Your task to perform on an android device: check storage Image 0: 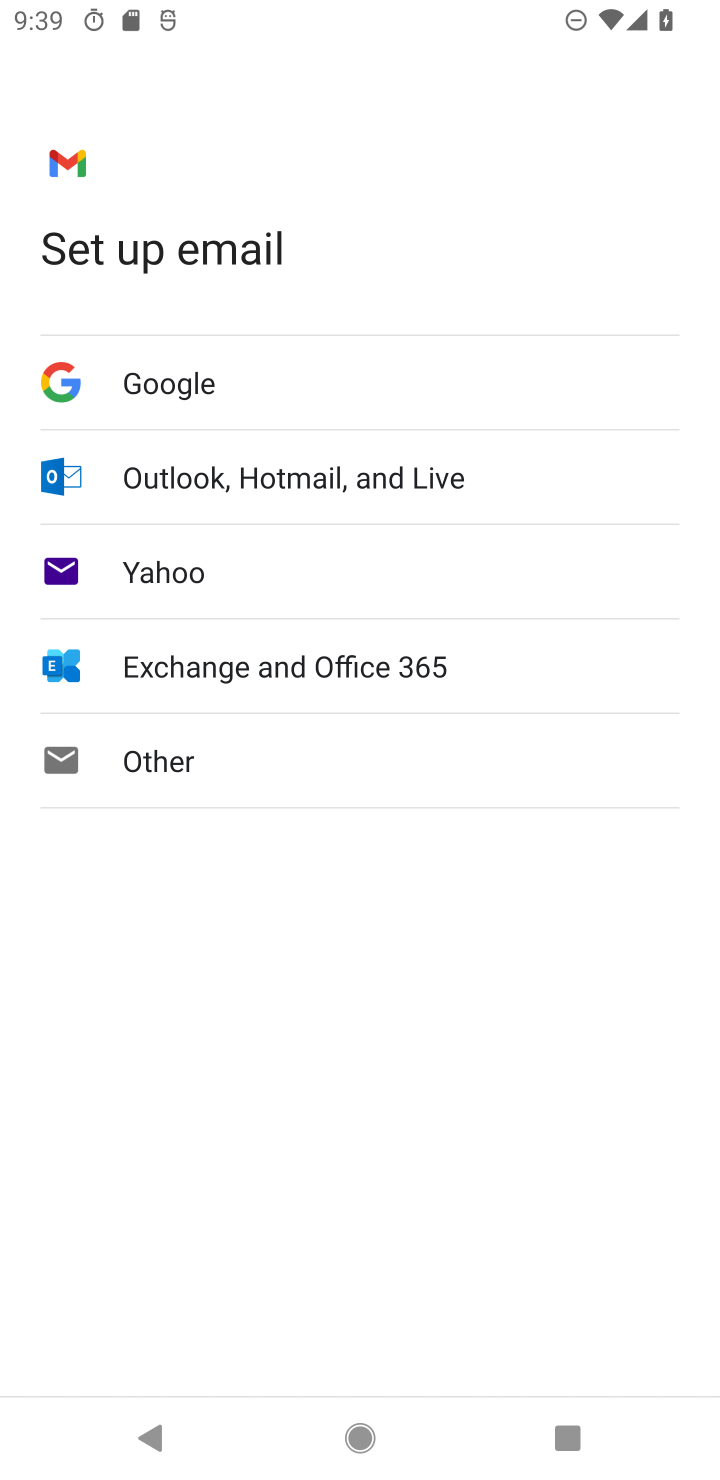
Step 0: press home button
Your task to perform on an android device: check storage Image 1: 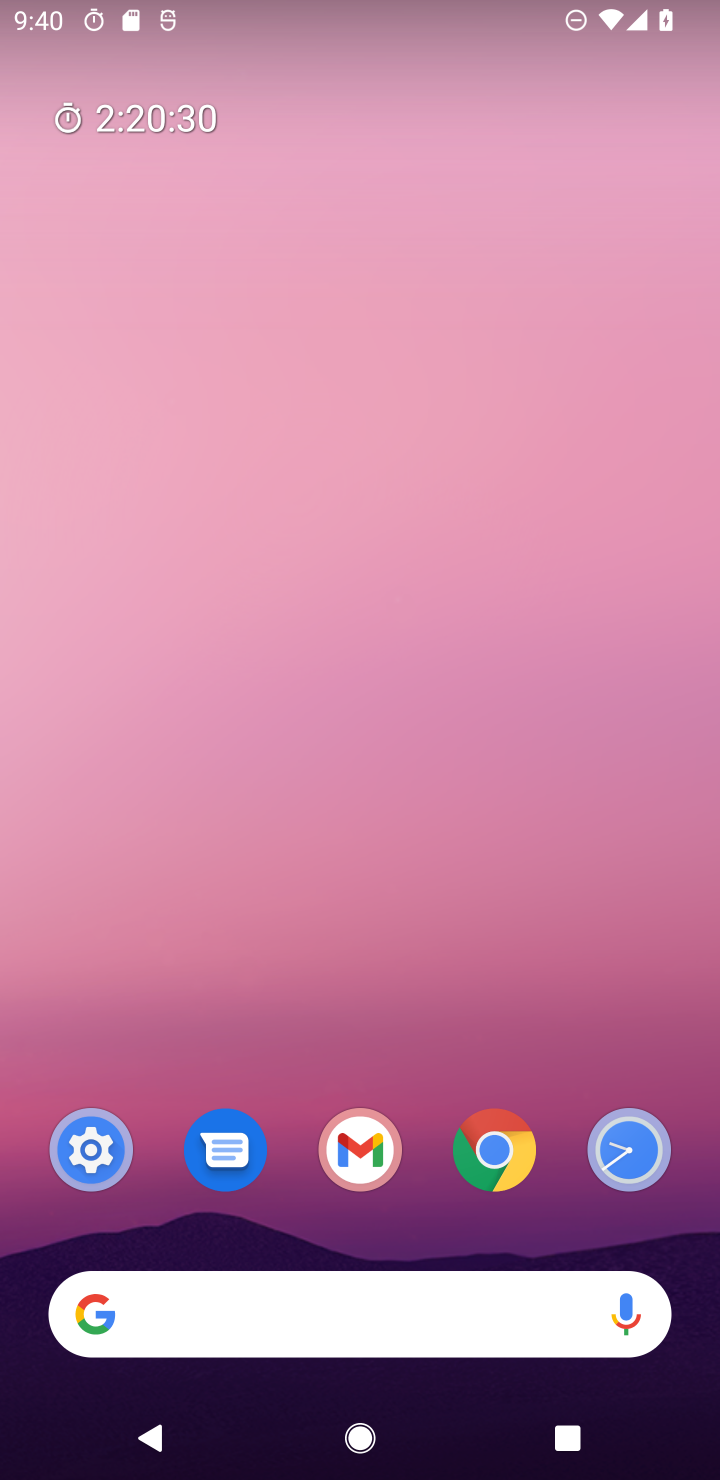
Step 1: drag from (230, 1300) to (132, 526)
Your task to perform on an android device: check storage Image 2: 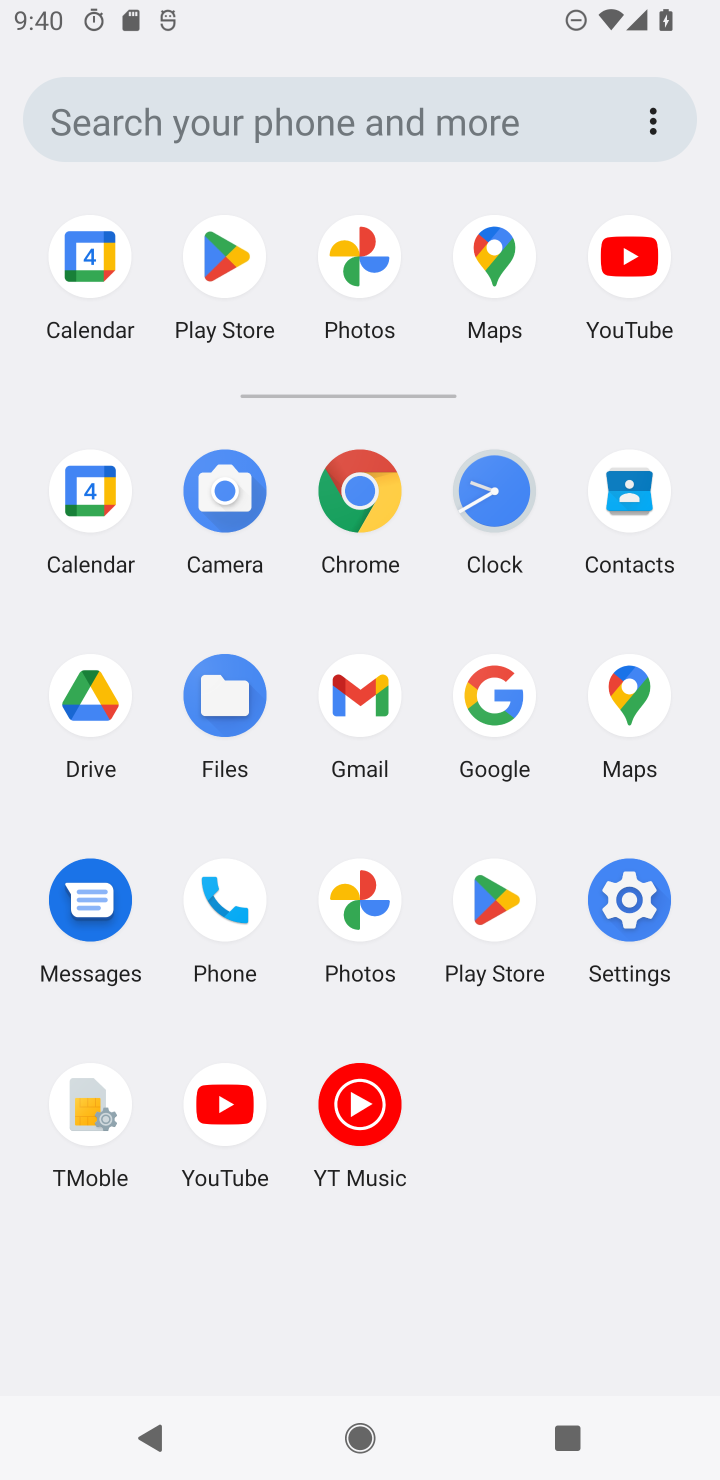
Step 2: click (647, 912)
Your task to perform on an android device: check storage Image 3: 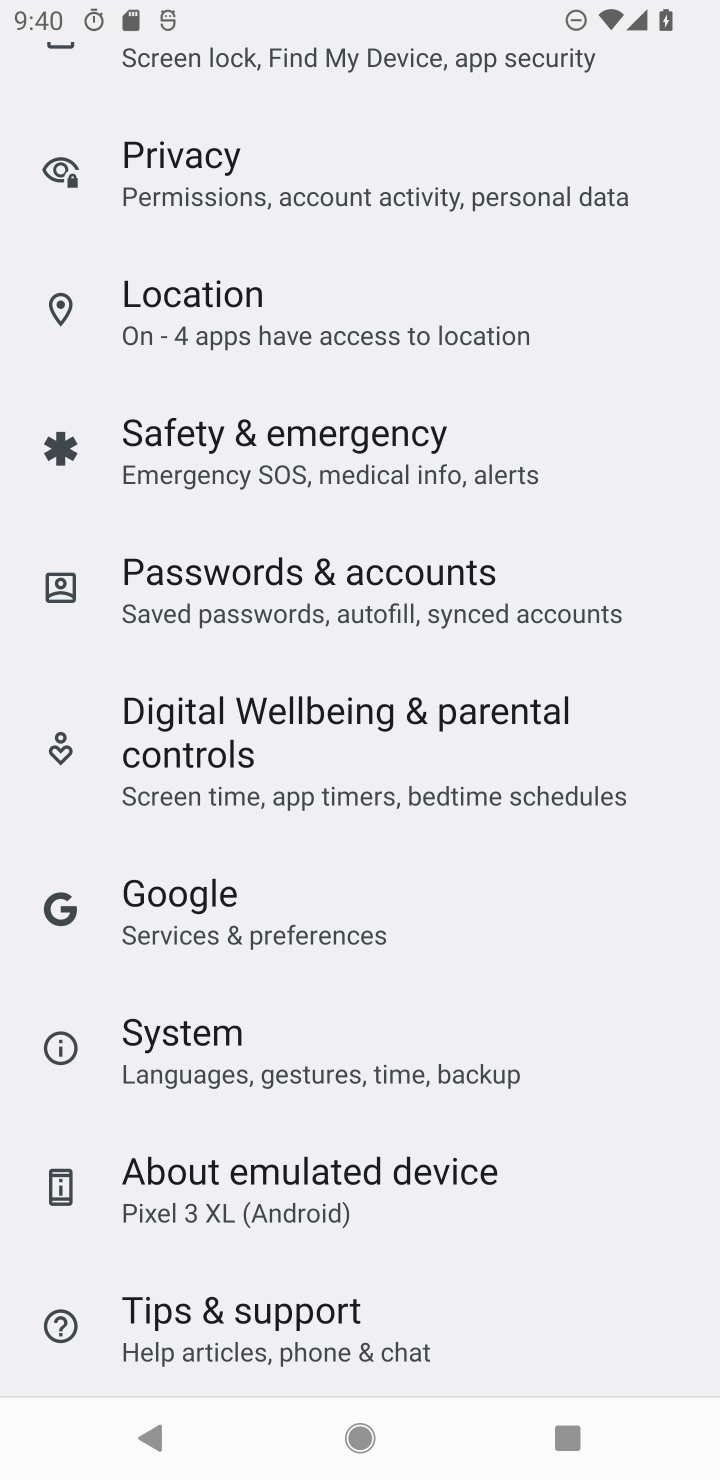
Step 3: drag from (185, 477) to (256, 1199)
Your task to perform on an android device: check storage Image 4: 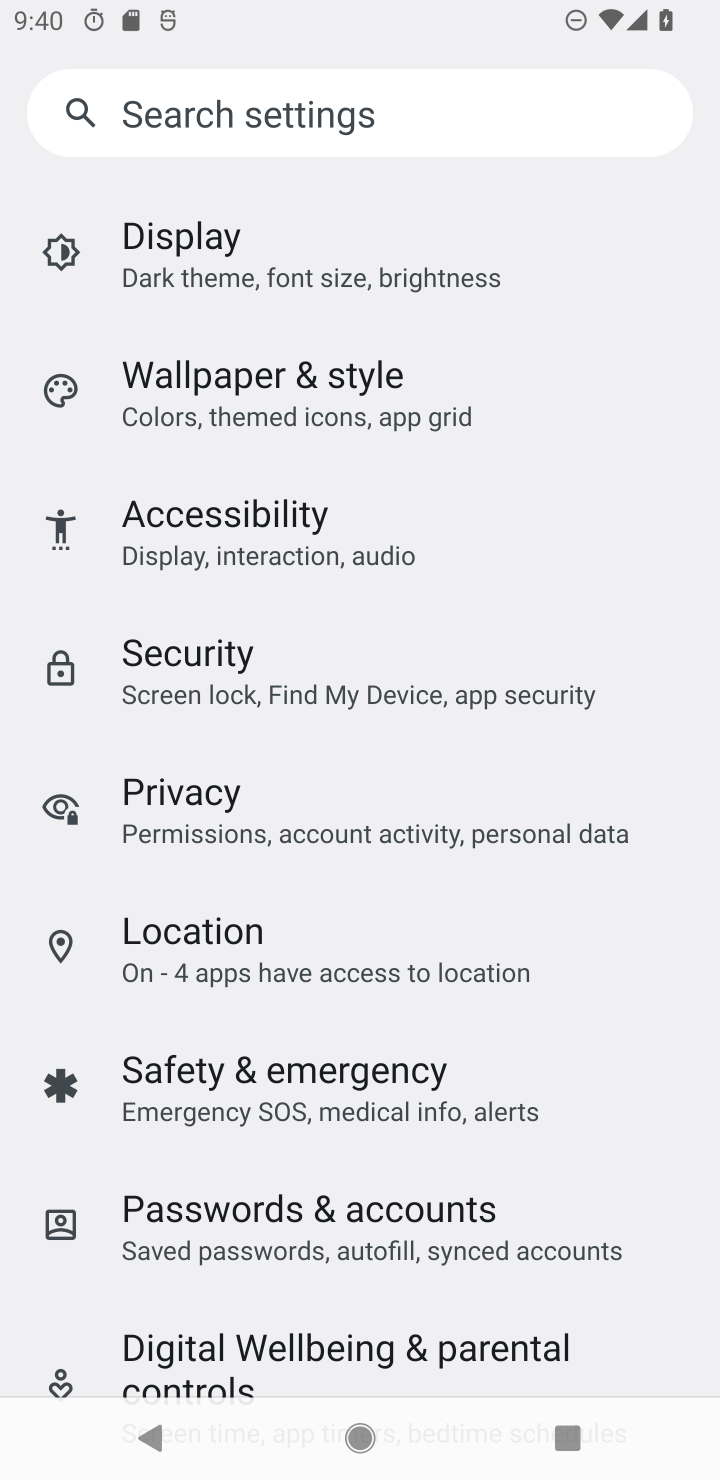
Step 4: drag from (231, 457) to (195, 1281)
Your task to perform on an android device: check storage Image 5: 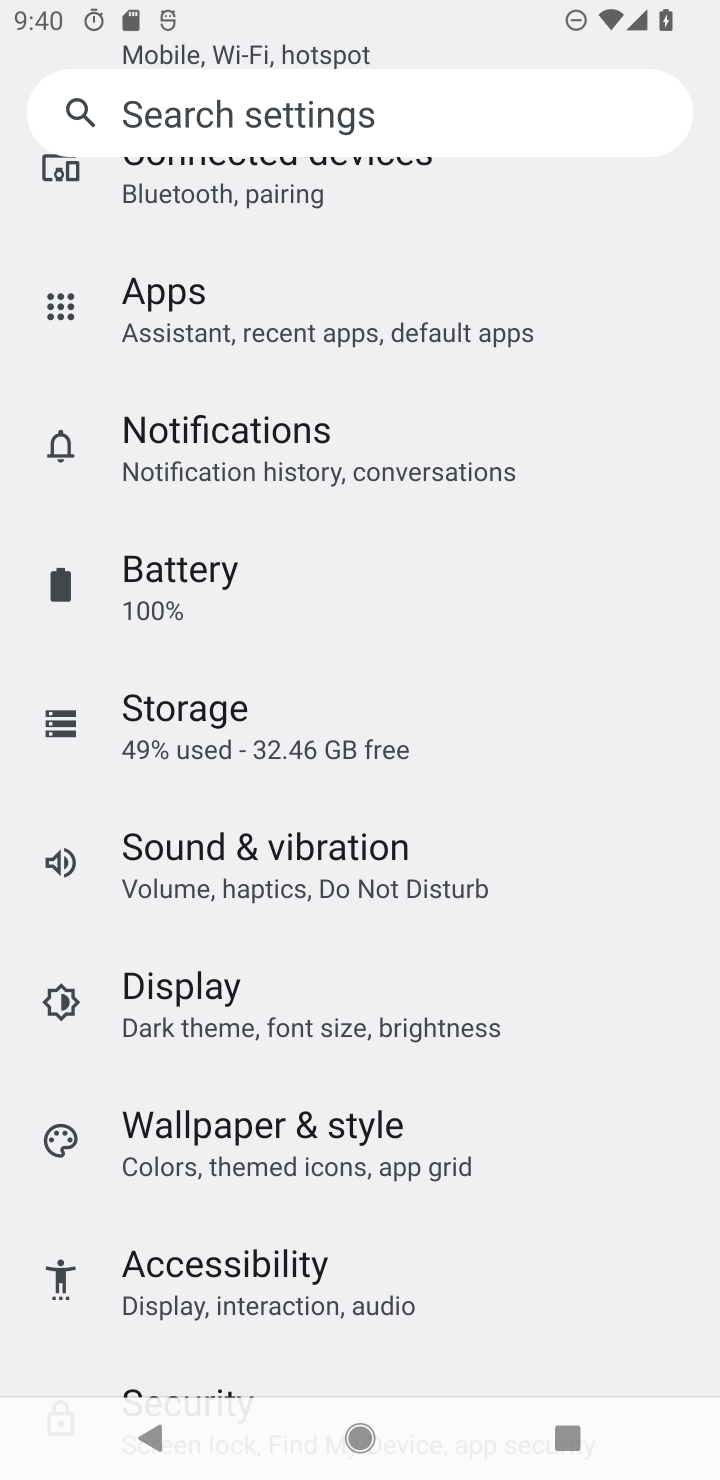
Step 5: click (258, 739)
Your task to perform on an android device: check storage Image 6: 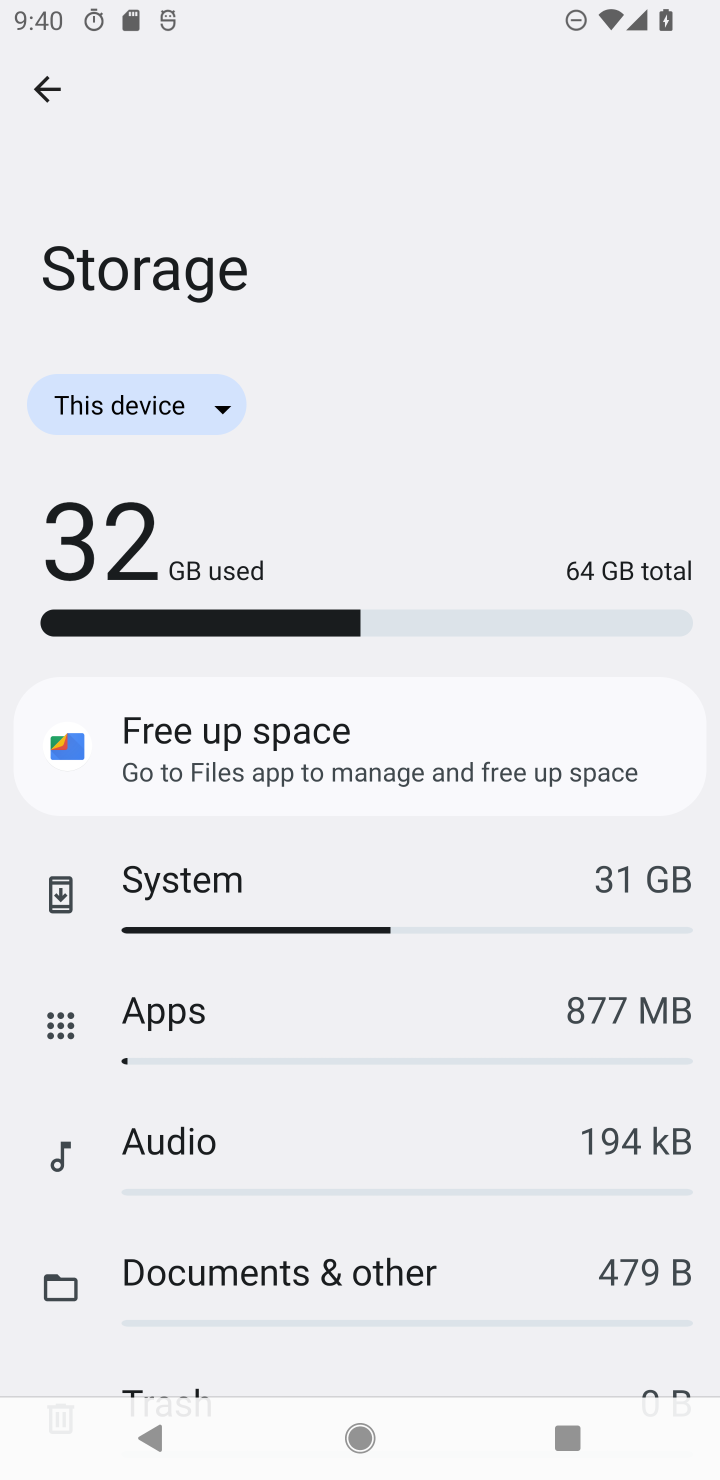
Step 6: task complete